Your task to perform on an android device: turn off sleep mode Image 0: 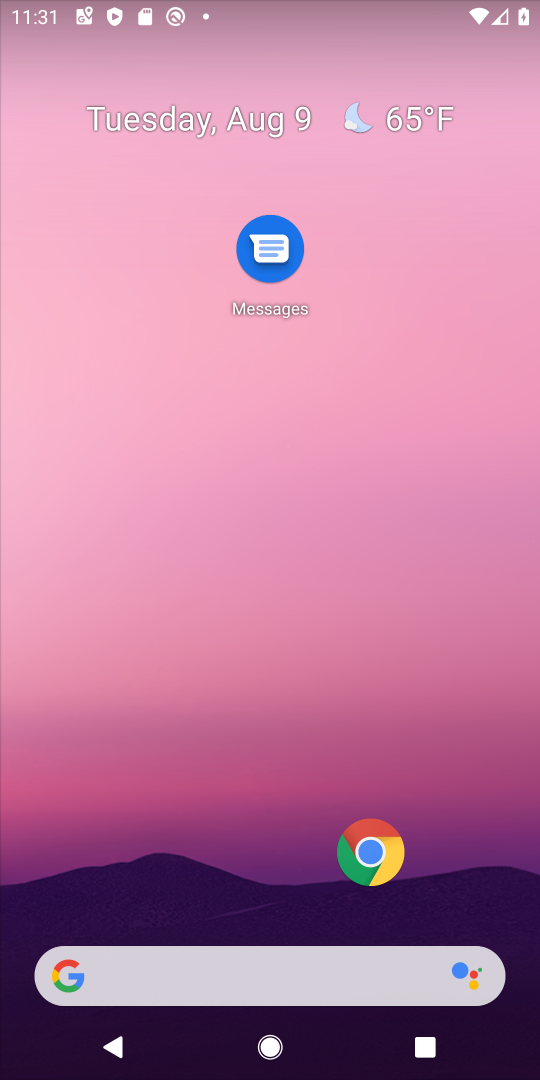
Step 0: drag from (221, 842) to (221, 45)
Your task to perform on an android device: turn off sleep mode Image 1: 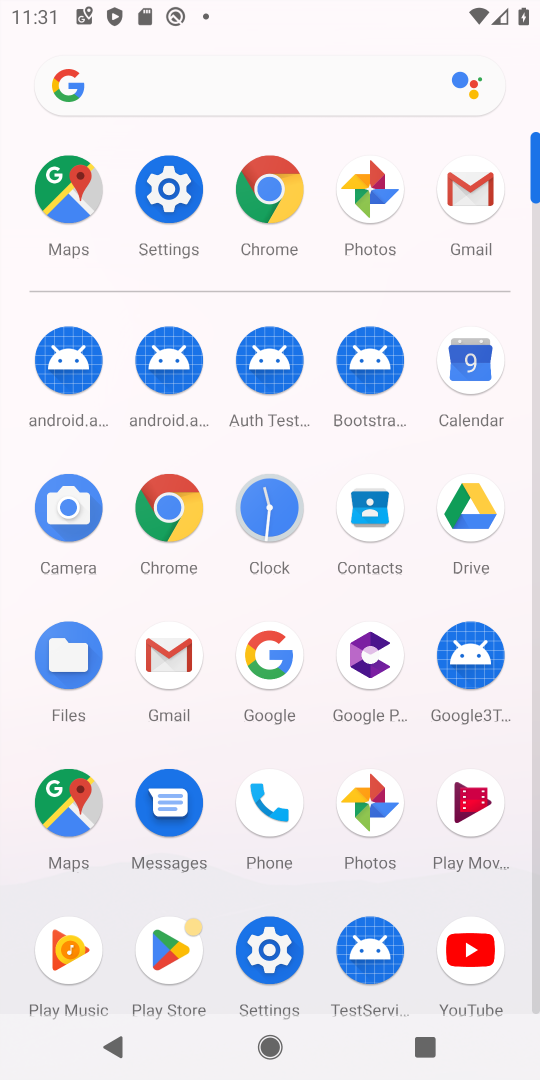
Step 1: click (166, 209)
Your task to perform on an android device: turn off sleep mode Image 2: 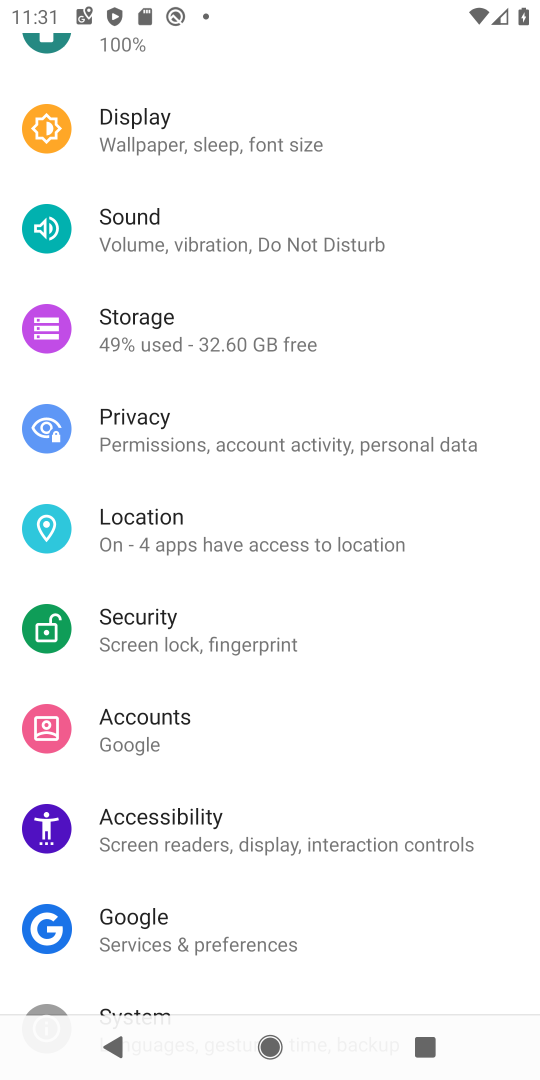
Step 2: task complete